Your task to perform on an android device: change keyboard looks Image 0: 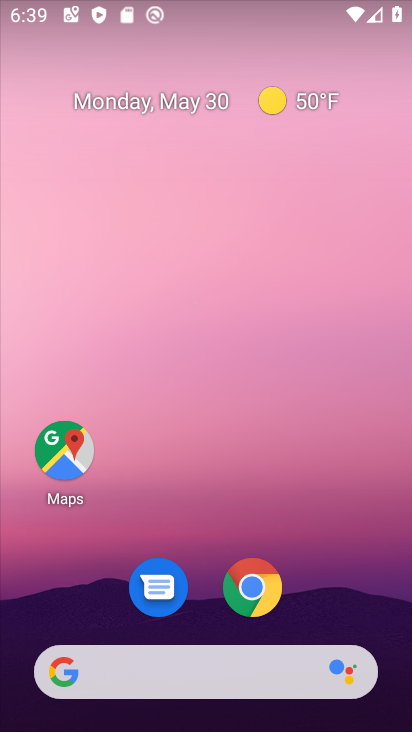
Step 0: drag from (326, 562) to (194, 17)
Your task to perform on an android device: change keyboard looks Image 1: 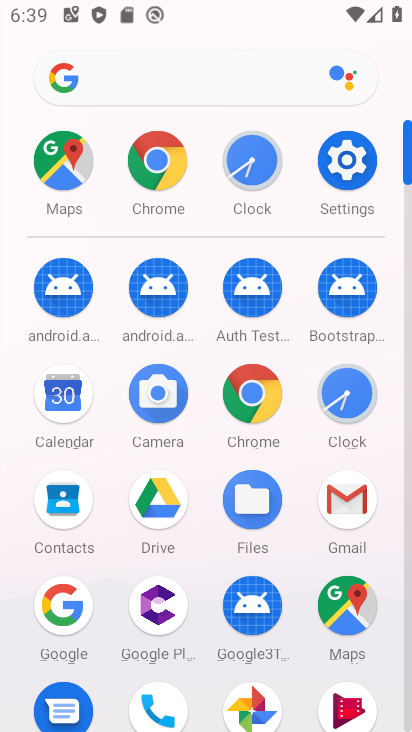
Step 1: drag from (0, 526) to (8, 161)
Your task to perform on an android device: change keyboard looks Image 2: 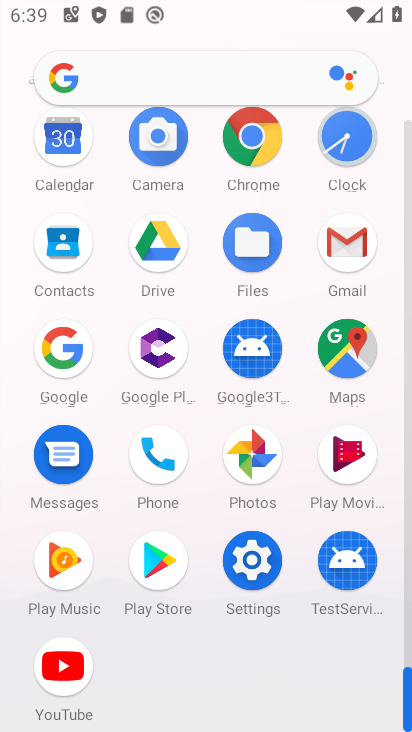
Step 2: click (247, 554)
Your task to perform on an android device: change keyboard looks Image 3: 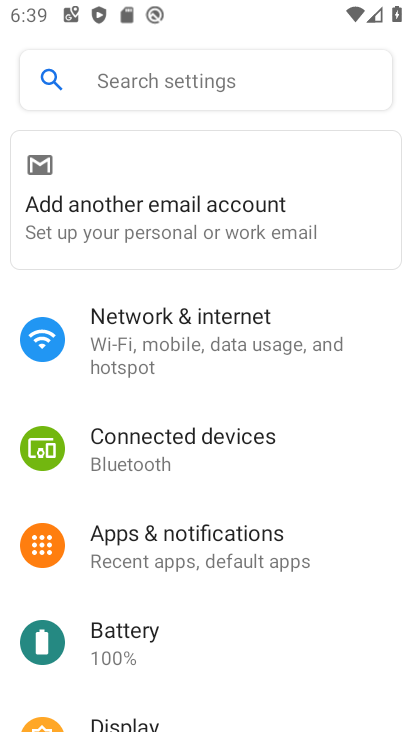
Step 3: drag from (296, 624) to (274, 210)
Your task to perform on an android device: change keyboard looks Image 4: 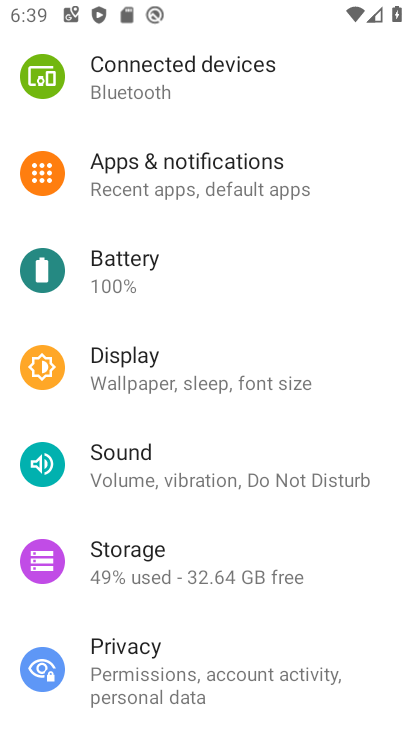
Step 4: drag from (315, 574) to (280, 70)
Your task to perform on an android device: change keyboard looks Image 5: 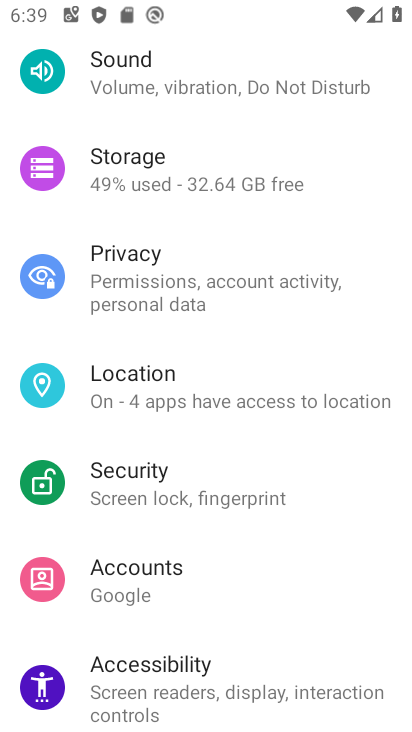
Step 5: drag from (302, 560) to (307, 104)
Your task to perform on an android device: change keyboard looks Image 6: 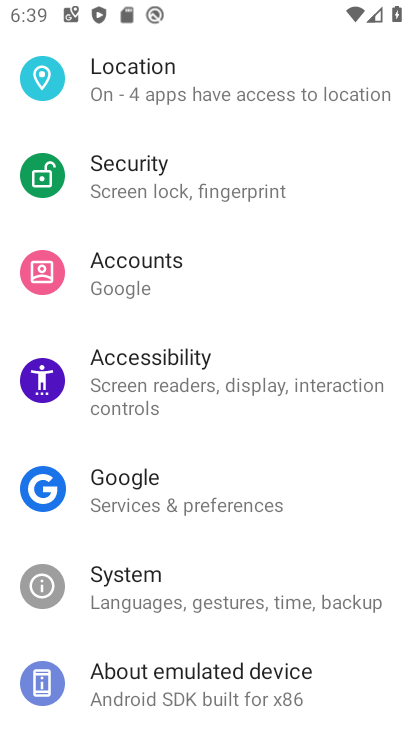
Step 6: drag from (273, 619) to (263, 133)
Your task to perform on an android device: change keyboard looks Image 7: 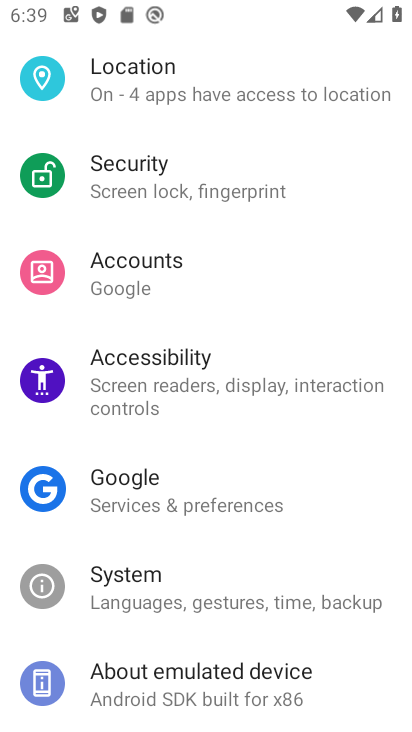
Step 7: drag from (273, 590) to (276, 250)
Your task to perform on an android device: change keyboard looks Image 8: 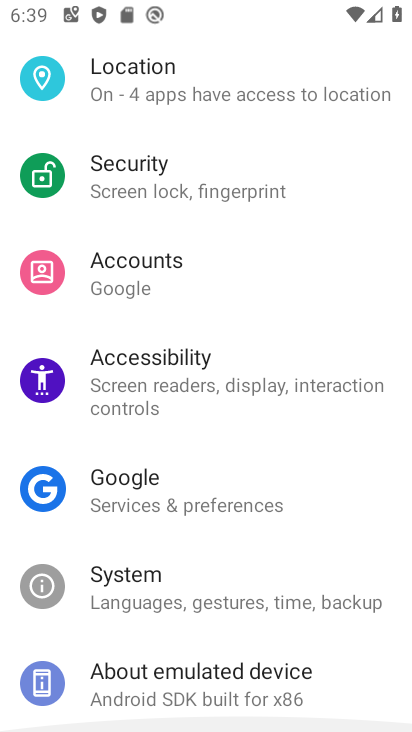
Step 8: click (190, 676)
Your task to perform on an android device: change keyboard looks Image 9: 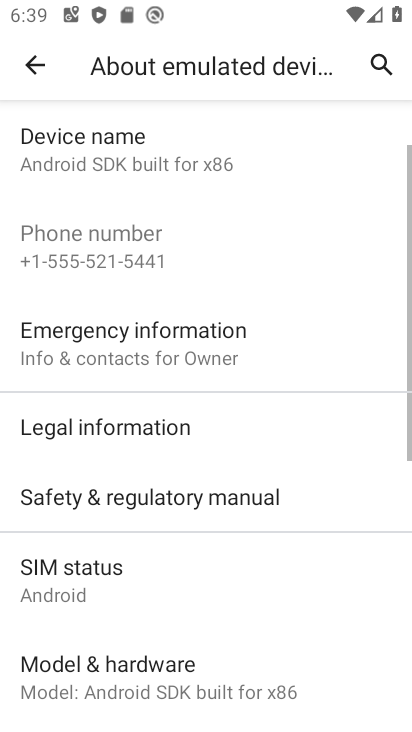
Step 9: click (208, 657)
Your task to perform on an android device: change keyboard looks Image 10: 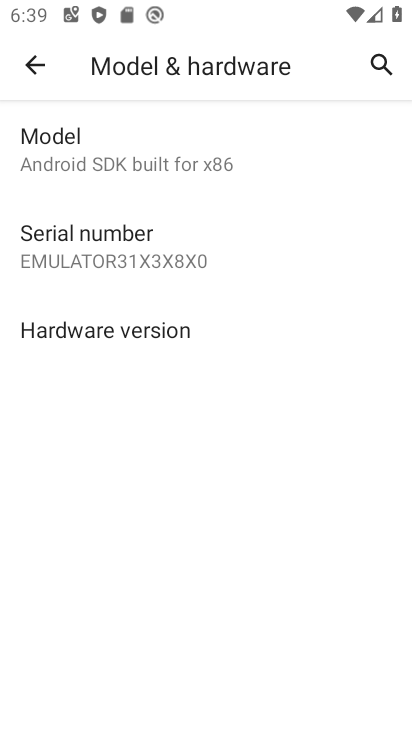
Step 10: click (40, 64)
Your task to perform on an android device: change keyboard looks Image 11: 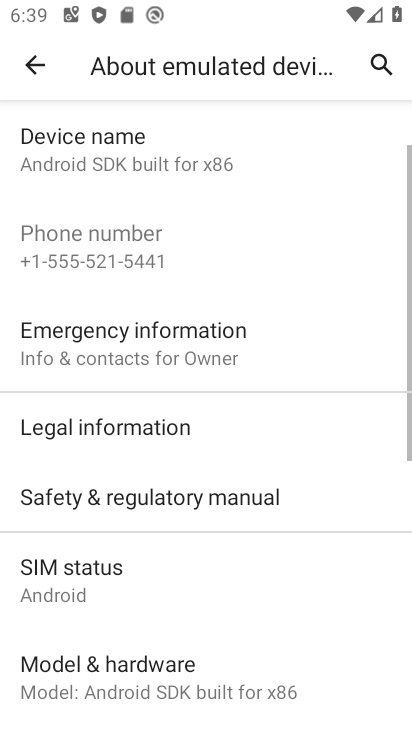
Step 11: drag from (268, 155) to (289, 663)
Your task to perform on an android device: change keyboard looks Image 12: 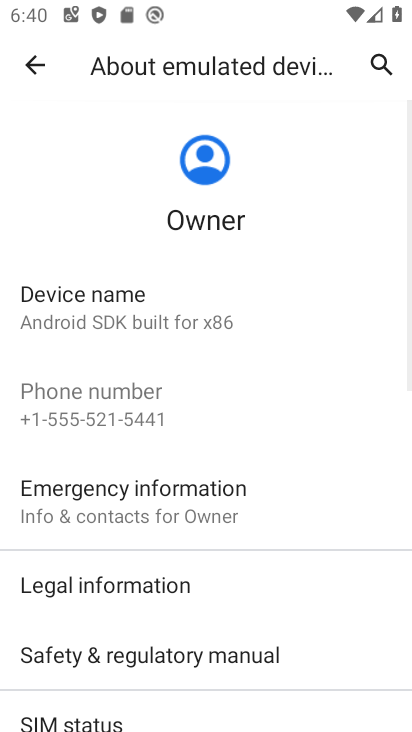
Step 12: click (26, 61)
Your task to perform on an android device: change keyboard looks Image 13: 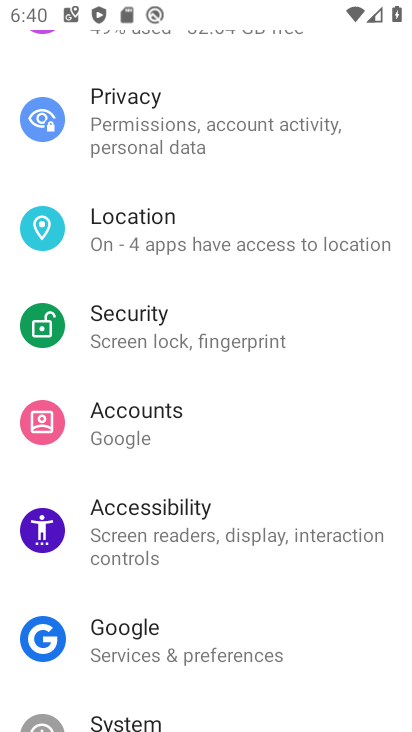
Step 13: drag from (246, 591) to (251, 206)
Your task to perform on an android device: change keyboard looks Image 14: 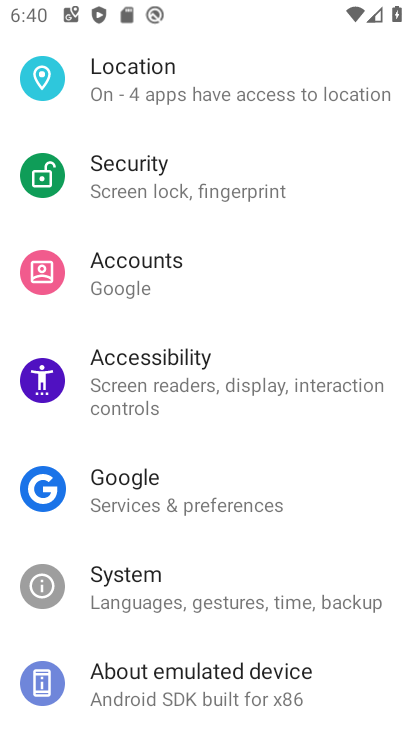
Step 14: click (200, 592)
Your task to perform on an android device: change keyboard looks Image 15: 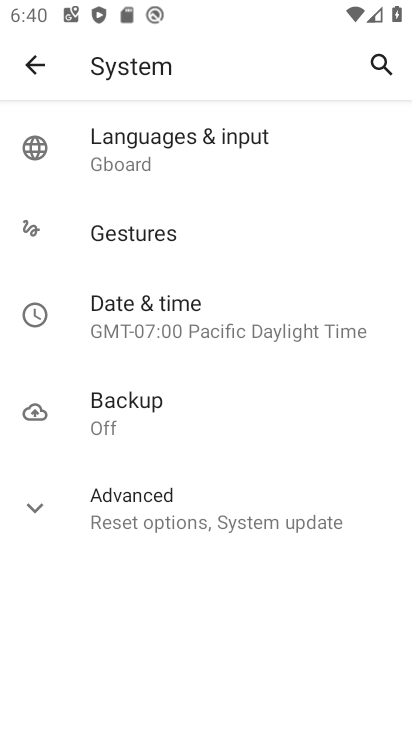
Step 15: click (165, 146)
Your task to perform on an android device: change keyboard looks Image 16: 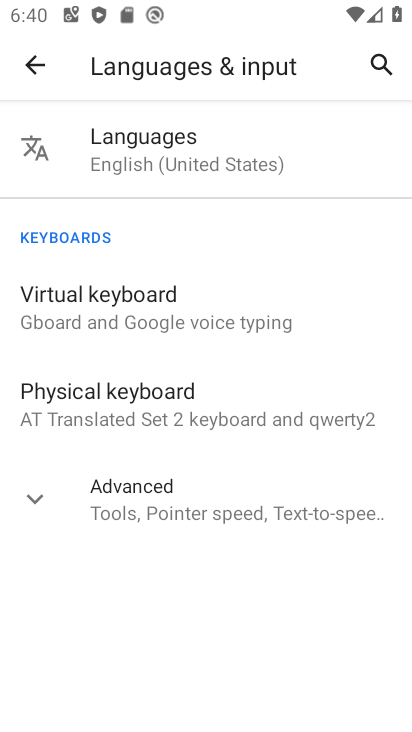
Step 16: click (153, 299)
Your task to perform on an android device: change keyboard looks Image 17: 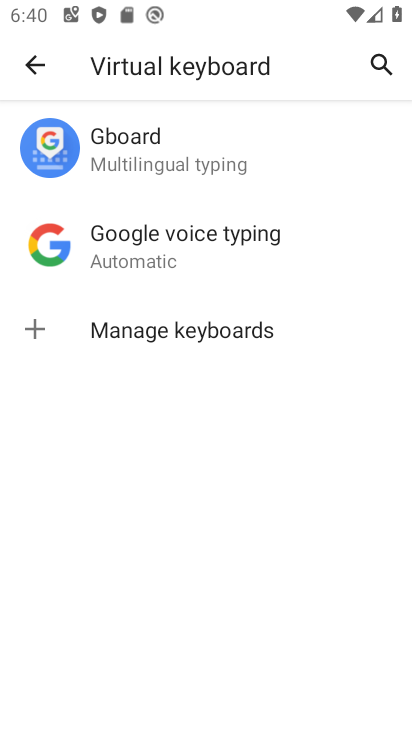
Step 17: click (186, 137)
Your task to perform on an android device: change keyboard looks Image 18: 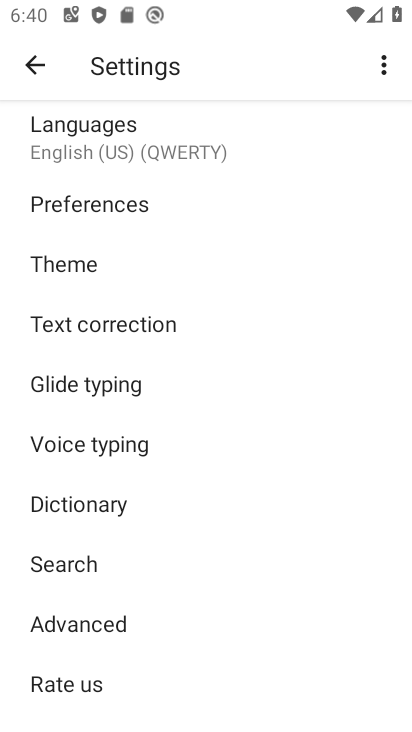
Step 18: click (108, 254)
Your task to perform on an android device: change keyboard looks Image 19: 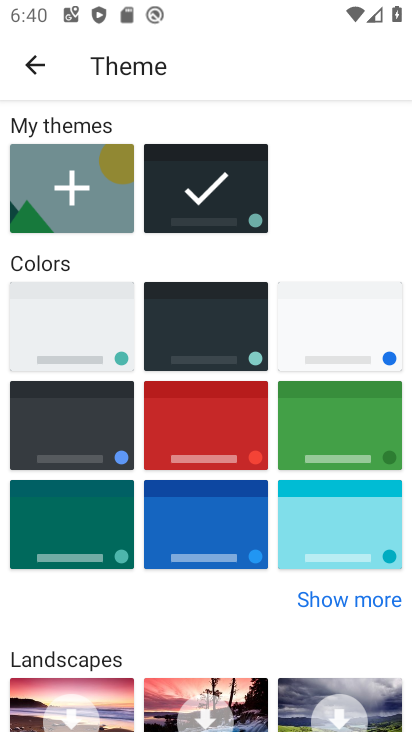
Step 19: click (231, 349)
Your task to perform on an android device: change keyboard looks Image 20: 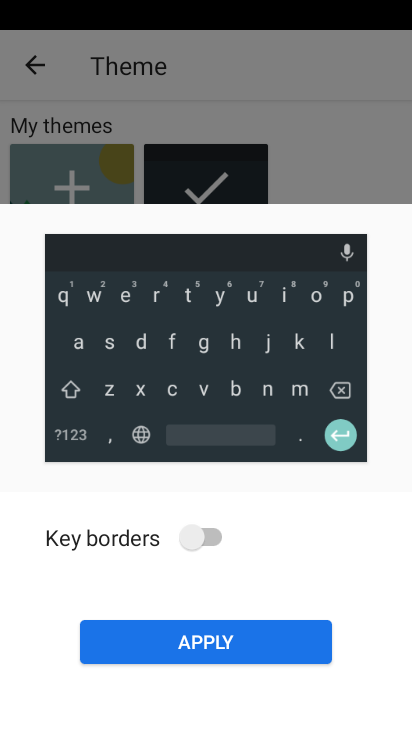
Step 20: click (241, 643)
Your task to perform on an android device: change keyboard looks Image 21: 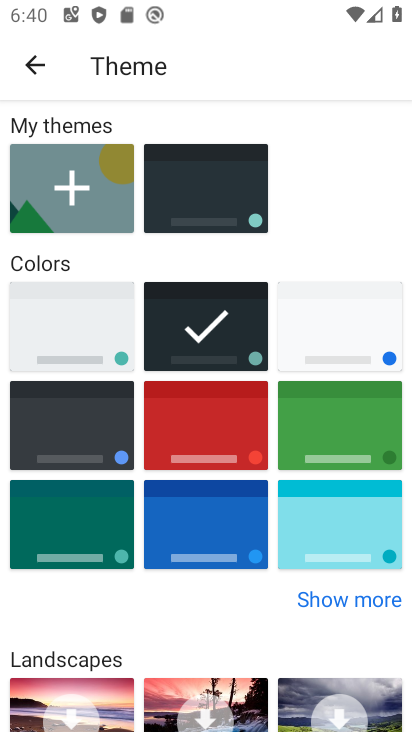
Step 21: task complete